Your task to perform on an android device: Go to wifi settings Image 0: 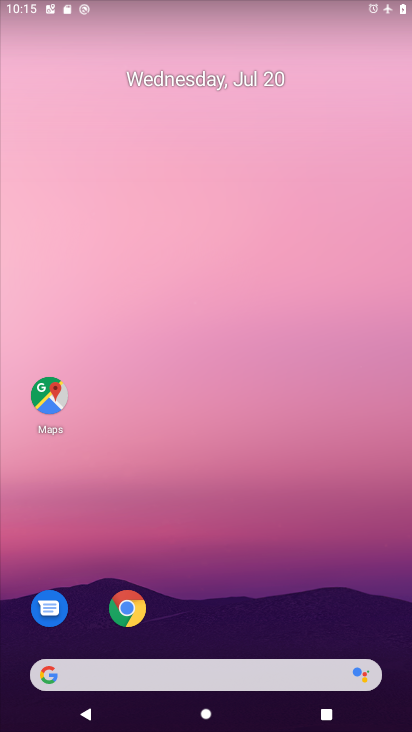
Step 0: drag from (184, 653) to (239, 151)
Your task to perform on an android device: Go to wifi settings Image 1: 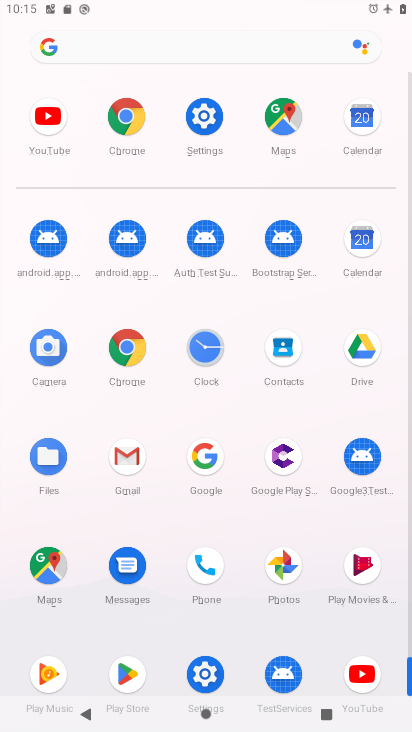
Step 1: click (205, 122)
Your task to perform on an android device: Go to wifi settings Image 2: 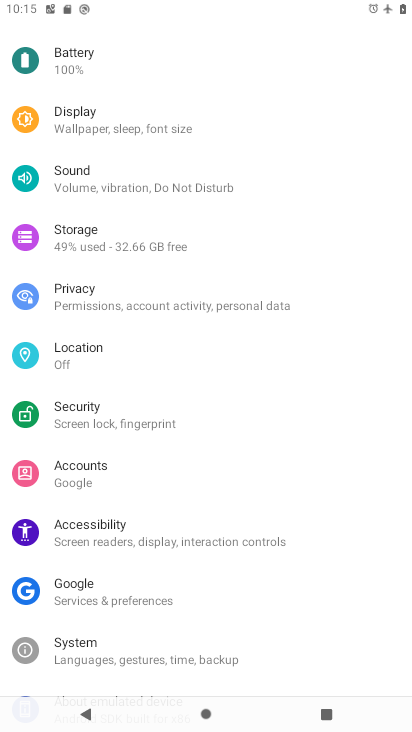
Step 2: drag from (185, 198) to (186, 617)
Your task to perform on an android device: Go to wifi settings Image 3: 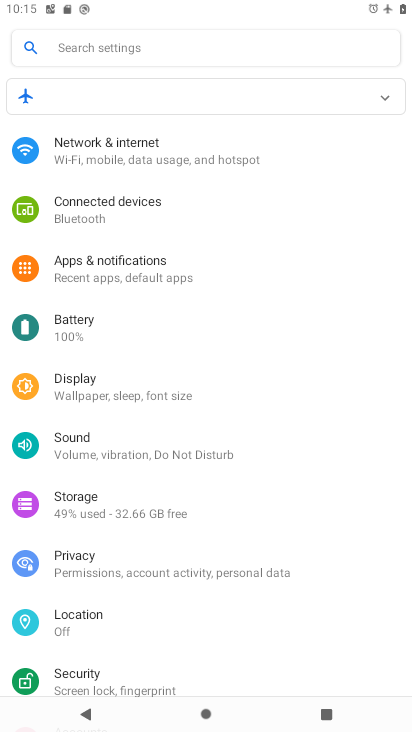
Step 3: click (141, 154)
Your task to perform on an android device: Go to wifi settings Image 4: 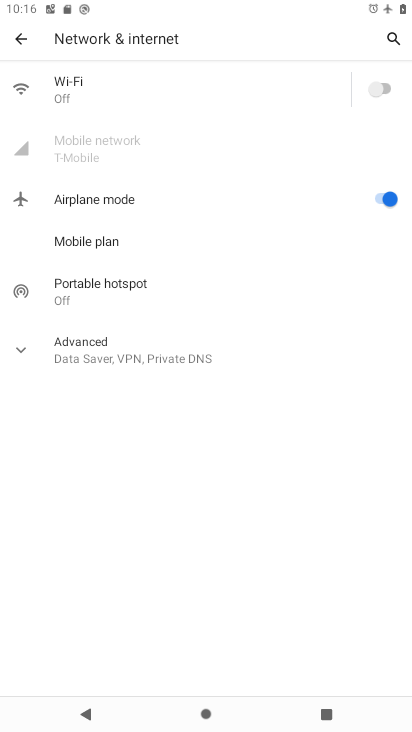
Step 4: click (390, 88)
Your task to perform on an android device: Go to wifi settings Image 5: 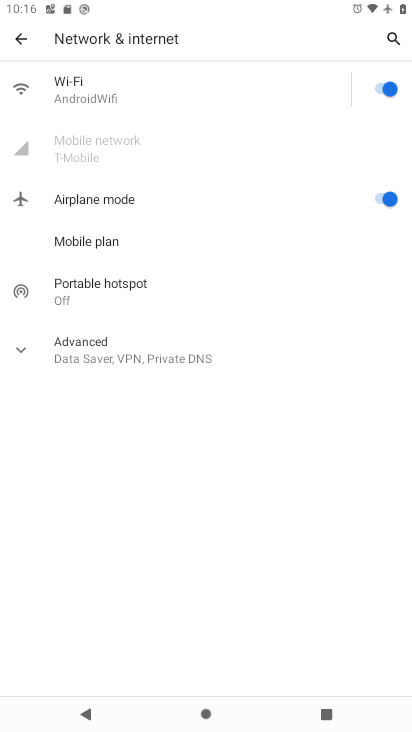
Step 5: task complete